Your task to perform on an android device: show emergency info Image 0: 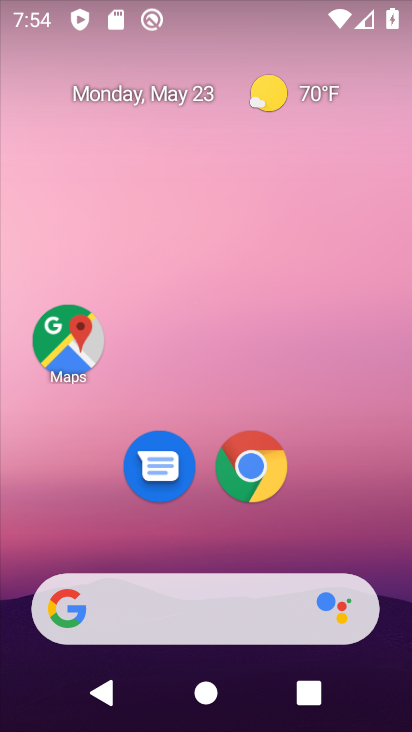
Step 0: drag from (197, 620) to (198, 119)
Your task to perform on an android device: show emergency info Image 1: 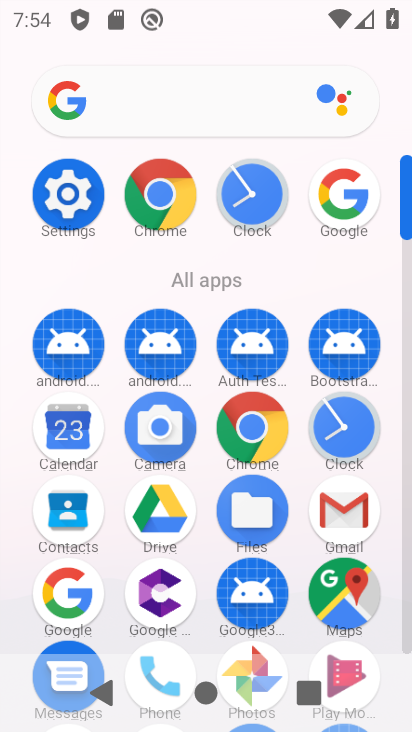
Step 1: click (80, 203)
Your task to perform on an android device: show emergency info Image 2: 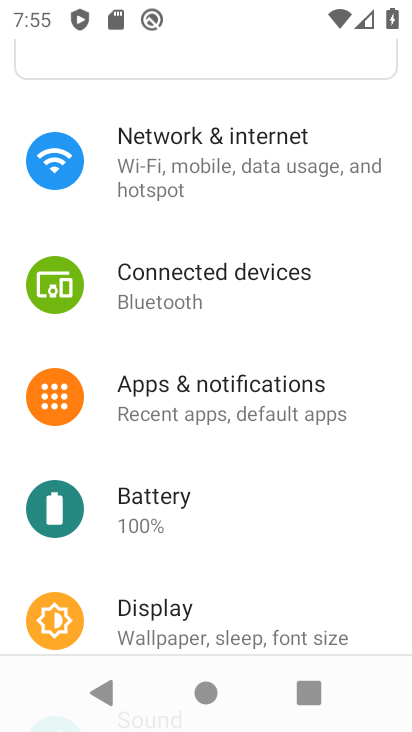
Step 2: drag from (146, 497) to (190, 4)
Your task to perform on an android device: show emergency info Image 3: 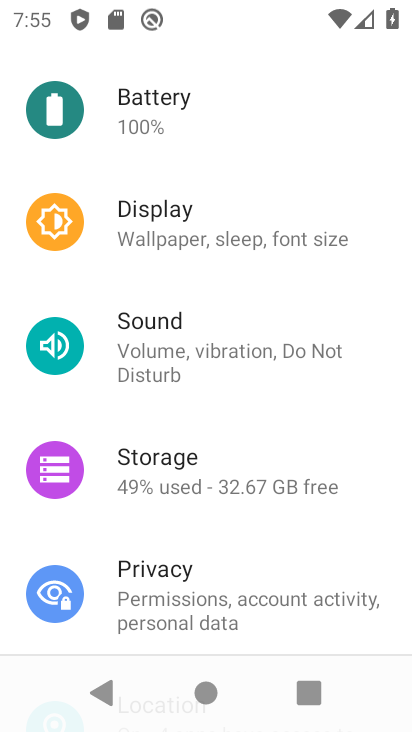
Step 3: drag from (174, 559) to (235, 137)
Your task to perform on an android device: show emergency info Image 4: 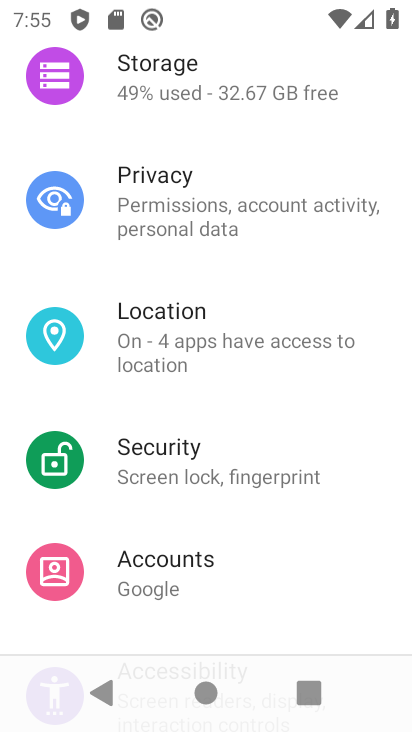
Step 4: drag from (185, 547) to (181, 9)
Your task to perform on an android device: show emergency info Image 5: 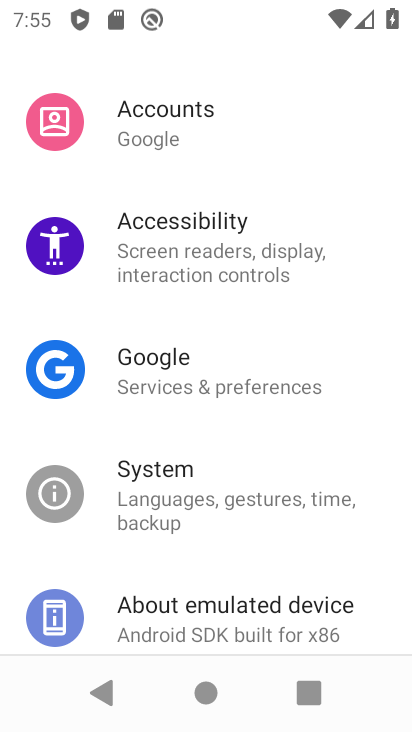
Step 5: drag from (194, 541) to (176, 45)
Your task to perform on an android device: show emergency info Image 6: 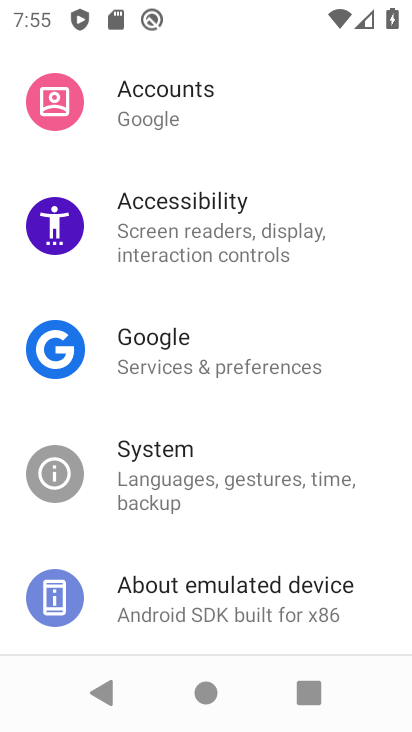
Step 6: click (211, 586)
Your task to perform on an android device: show emergency info Image 7: 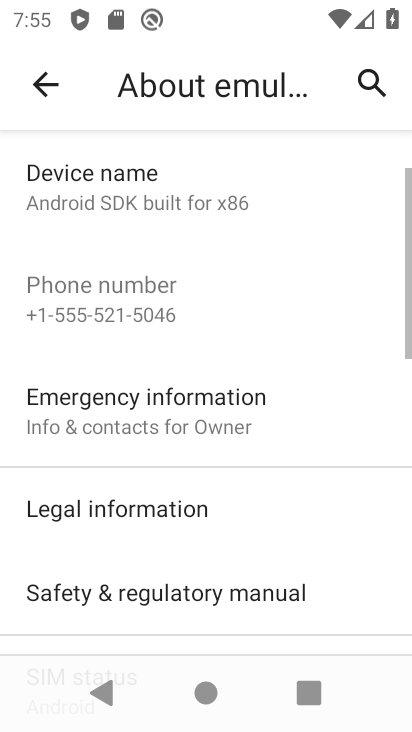
Step 7: click (243, 422)
Your task to perform on an android device: show emergency info Image 8: 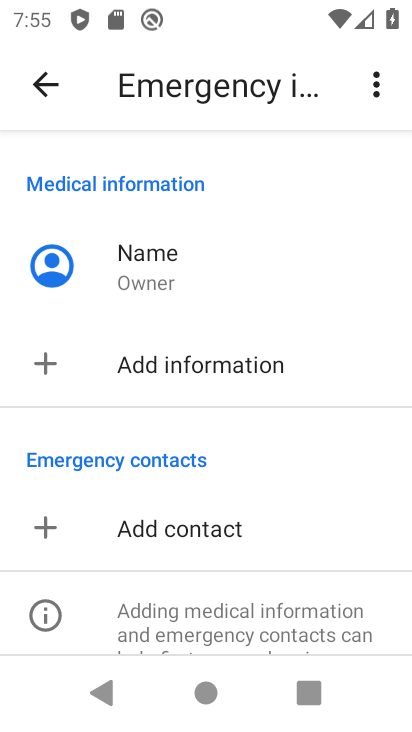
Step 8: task complete